Your task to perform on an android device: remove spam from my inbox in the gmail app Image 0: 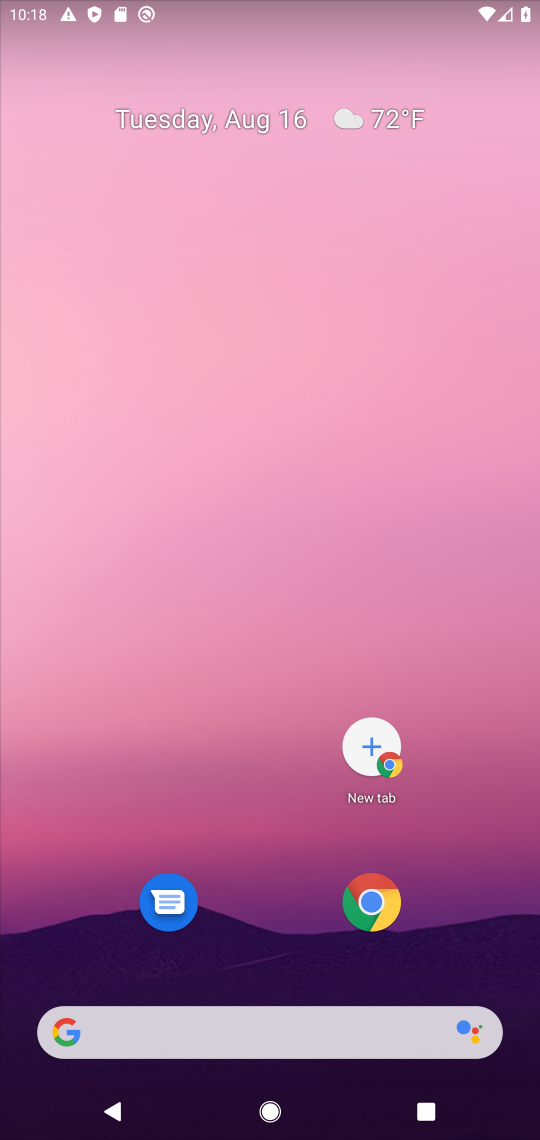
Step 0: drag from (277, 993) to (302, 7)
Your task to perform on an android device: remove spam from my inbox in the gmail app Image 1: 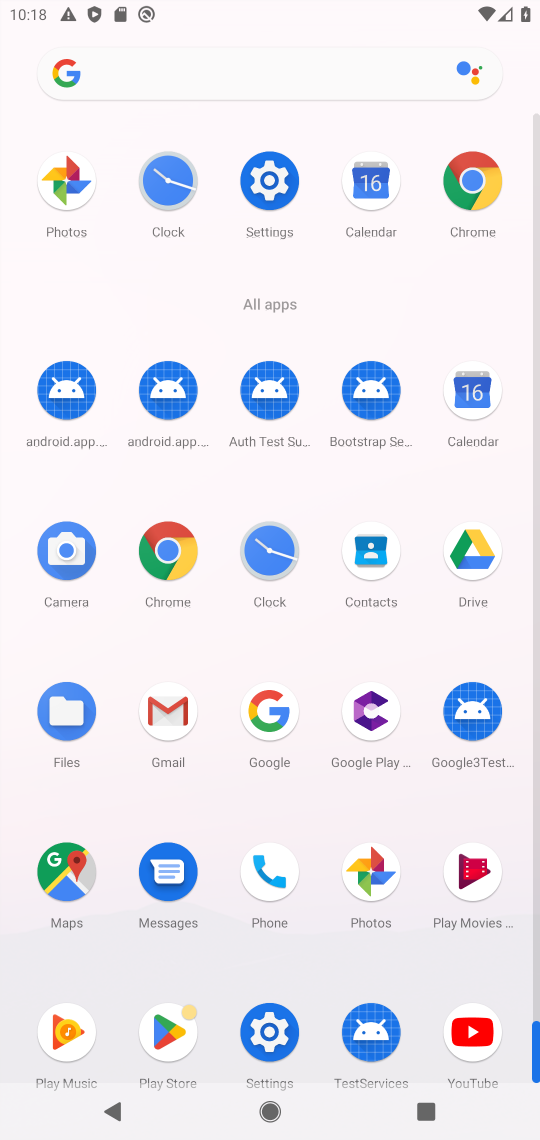
Step 1: click (163, 716)
Your task to perform on an android device: remove spam from my inbox in the gmail app Image 2: 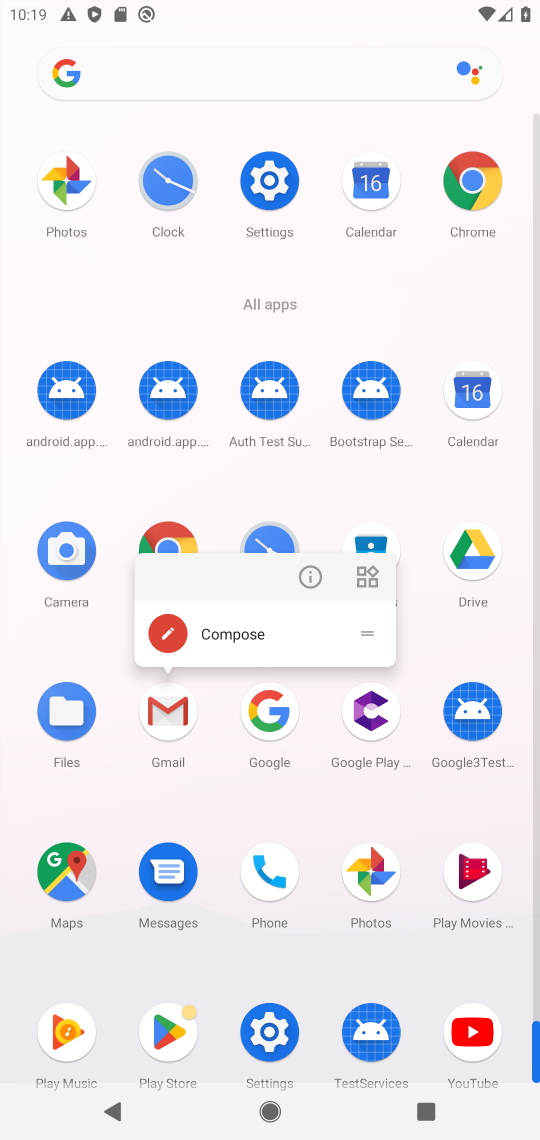
Step 2: click (163, 716)
Your task to perform on an android device: remove spam from my inbox in the gmail app Image 3: 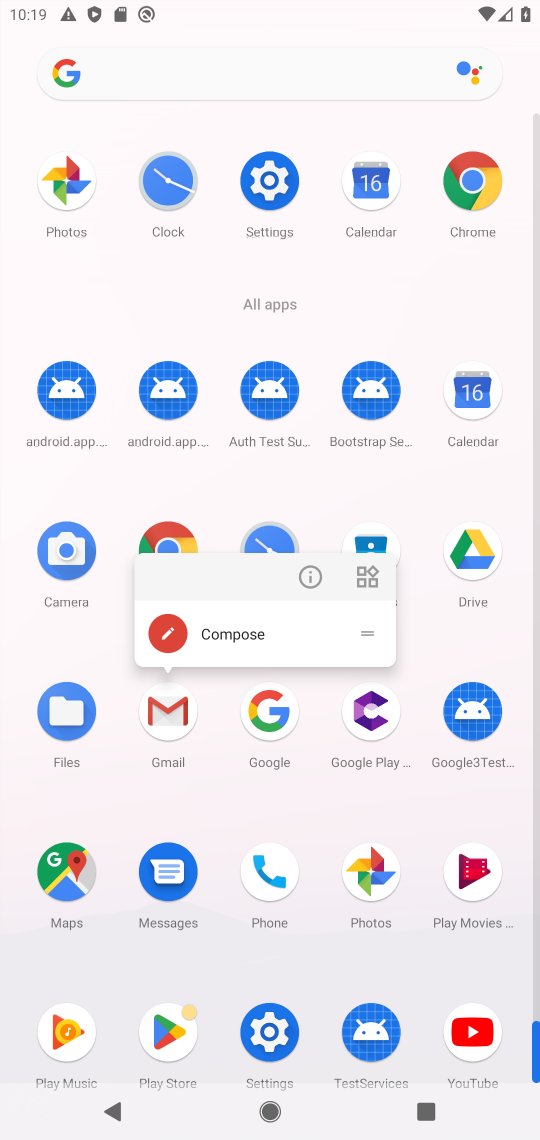
Step 3: click (166, 716)
Your task to perform on an android device: remove spam from my inbox in the gmail app Image 4: 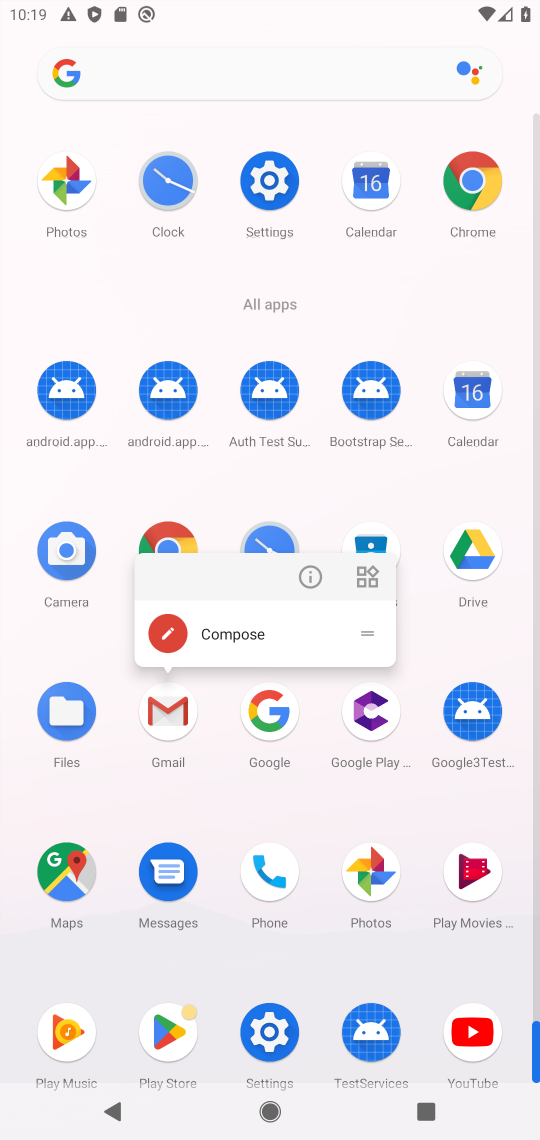
Step 4: click (166, 716)
Your task to perform on an android device: remove spam from my inbox in the gmail app Image 5: 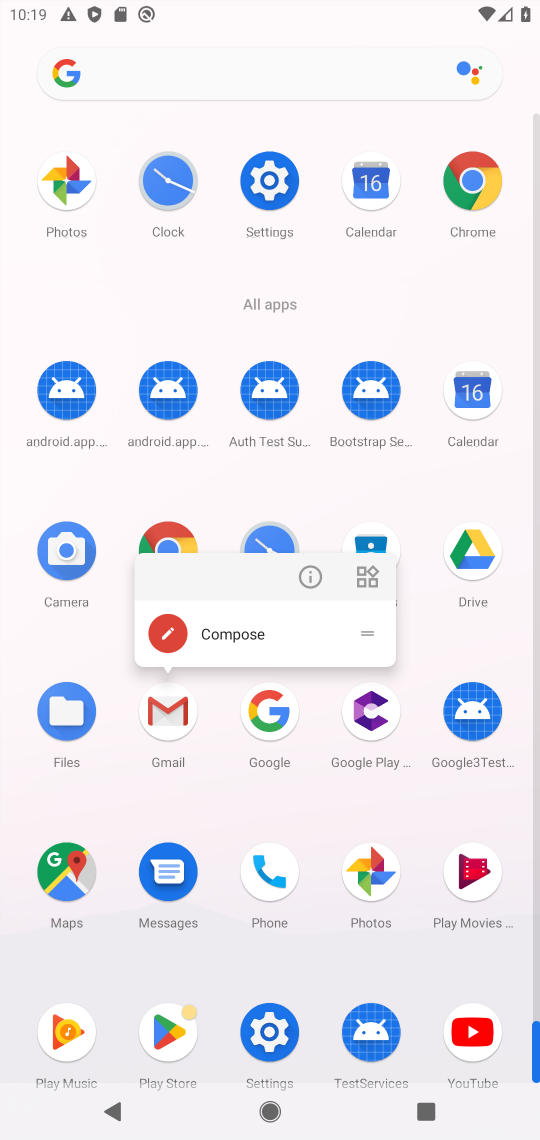
Step 5: click (166, 716)
Your task to perform on an android device: remove spam from my inbox in the gmail app Image 6: 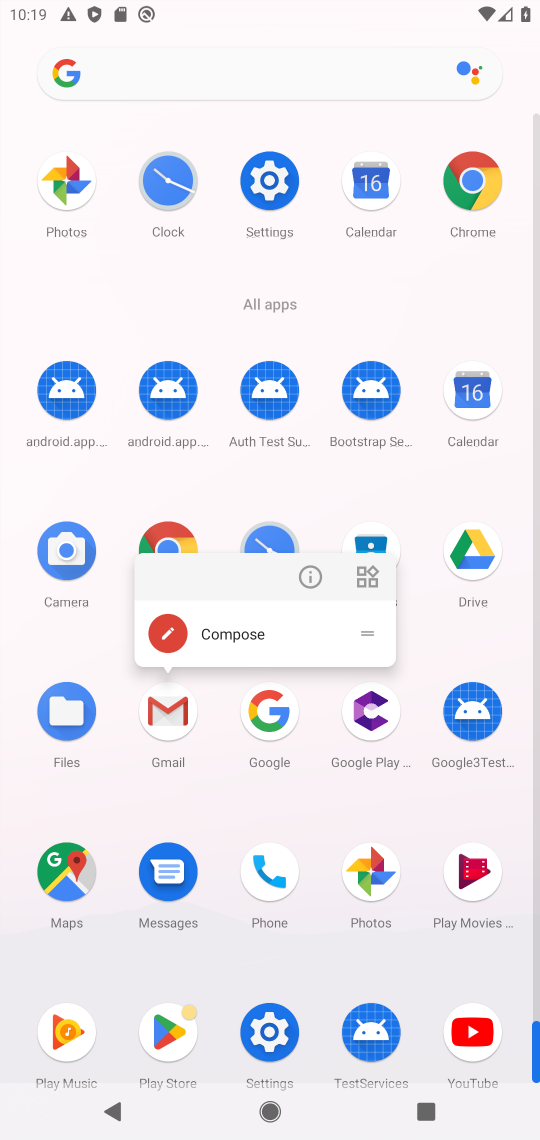
Step 6: click (166, 716)
Your task to perform on an android device: remove spam from my inbox in the gmail app Image 7: 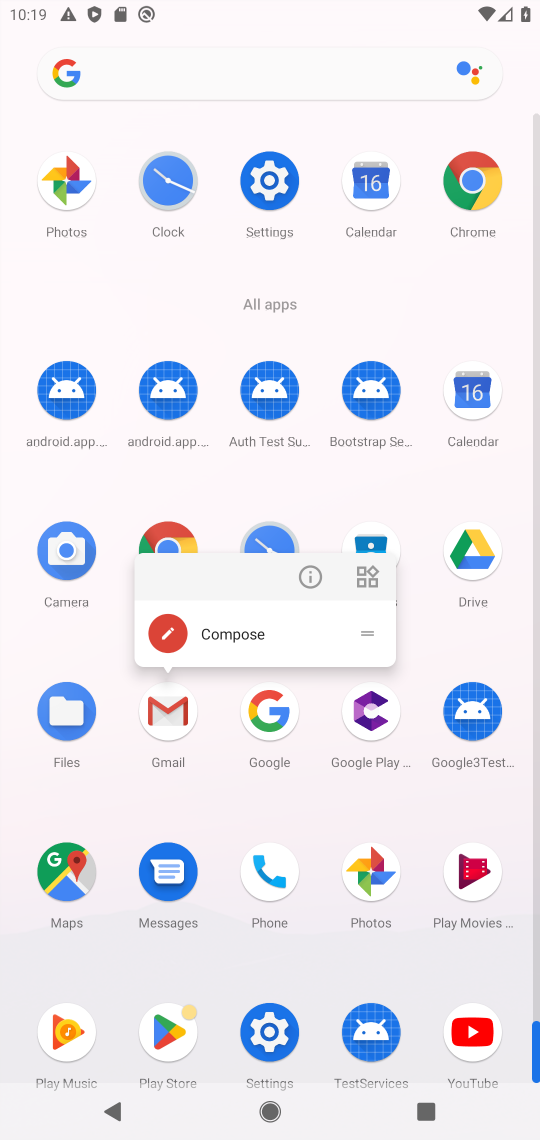
Step 7: click (166, 716)
Your task to perform on an android device: remove spam from my inbox in the gmail app Image 8: 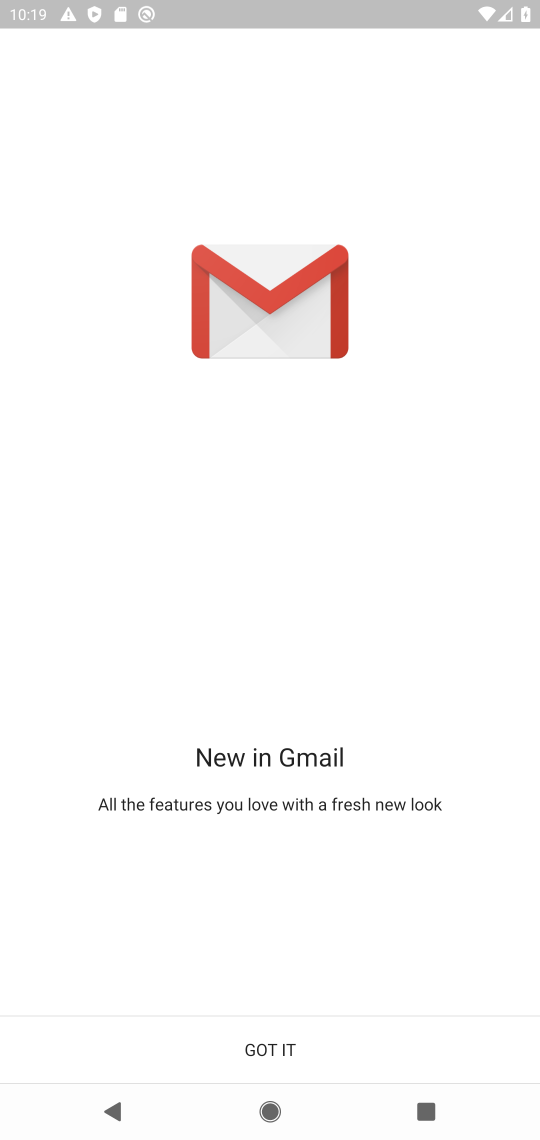
Step 8: click (286, 1047)
Your task to perform on an android device: remove spam from my inbox in the gmail app Image 9: 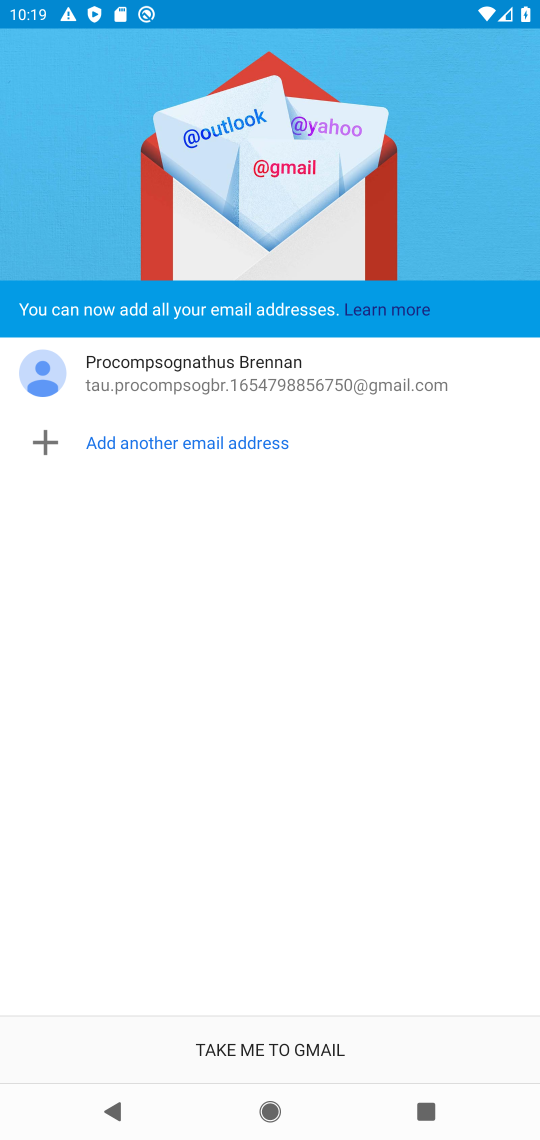
Step 9: click (286, 1047)
Your task to perform on an android device: remove spam from my inbox in the gmail app Image 10: 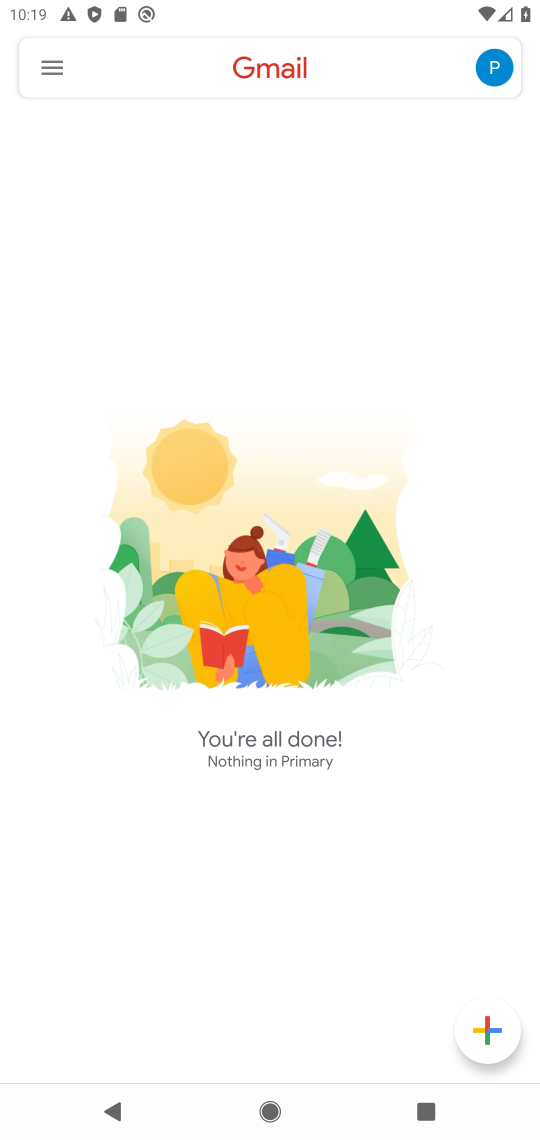
Step 10: click (50, 70)
Your task to perform on an android device: remove spam from my inbox in the gmail app Image 11: 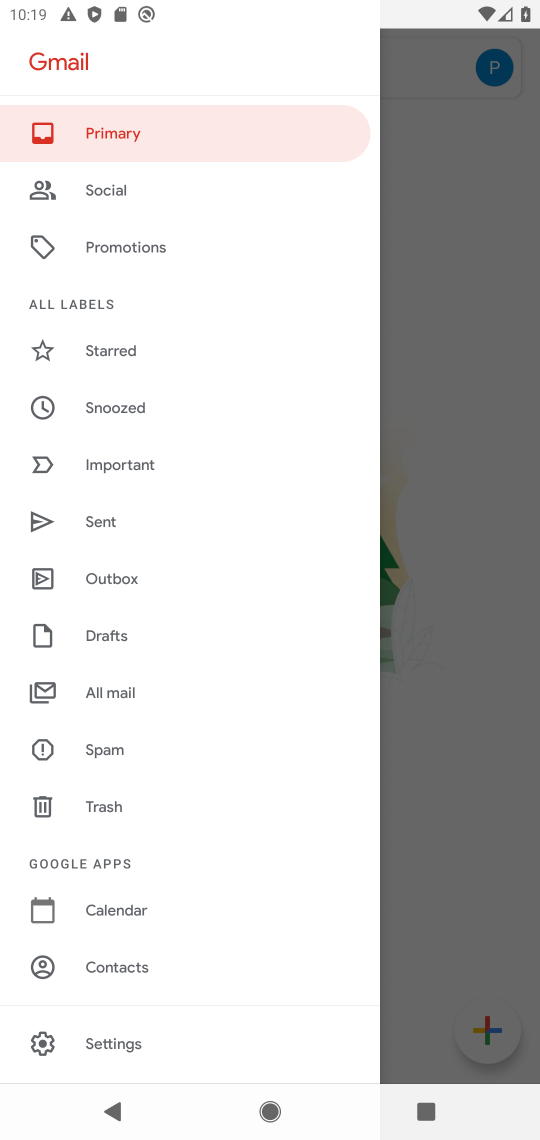
Step 11: click (116, 762)
Your task to perform on an android device: remove spam from my inbox in the gmail app Image 12: 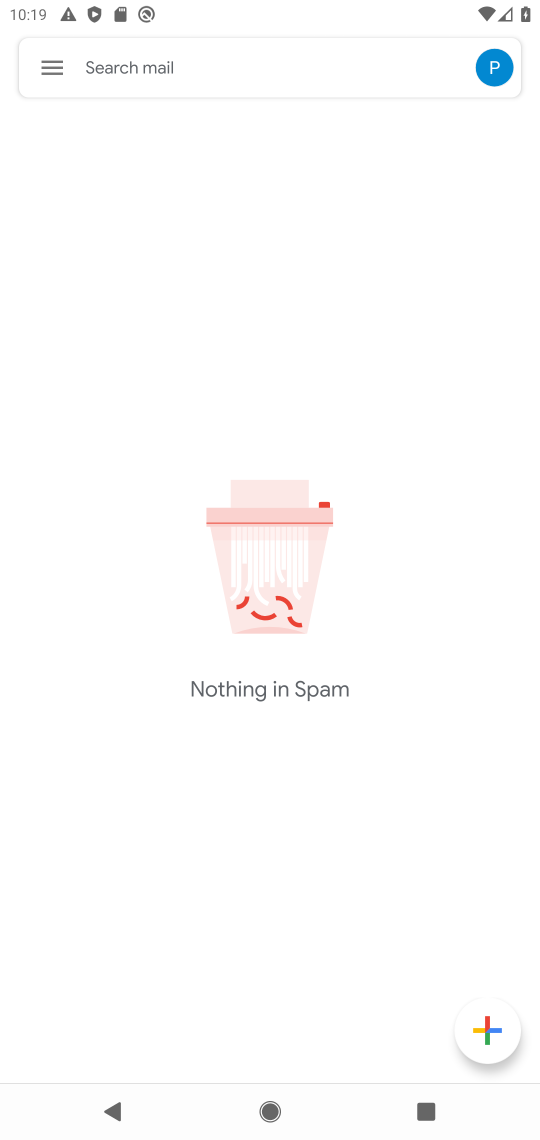
Step 12: task complete